Your task to perform on an android device: Open internet settings Image 0: 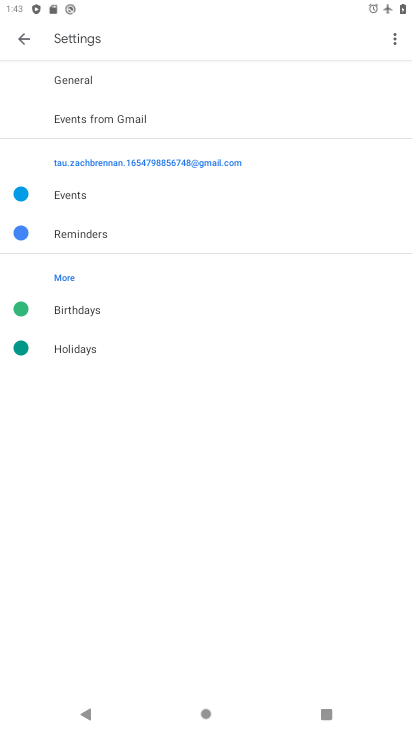
Step 0: press home button
Your task to perform on an android device: Open internet settings Image 1: 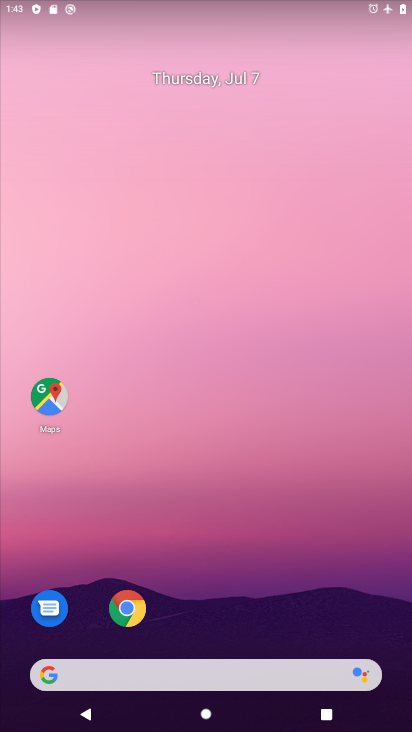
Step 1: drag from (237, 715) to (188, 200)
Your task to perform on an android device: Open internet settings Image 2: 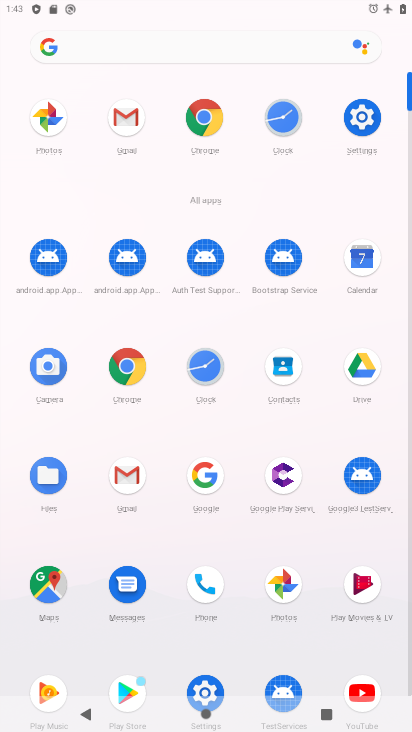
Step 2: click (361, 112)
Your task to perform on an android device: Open internet settings Image 3: 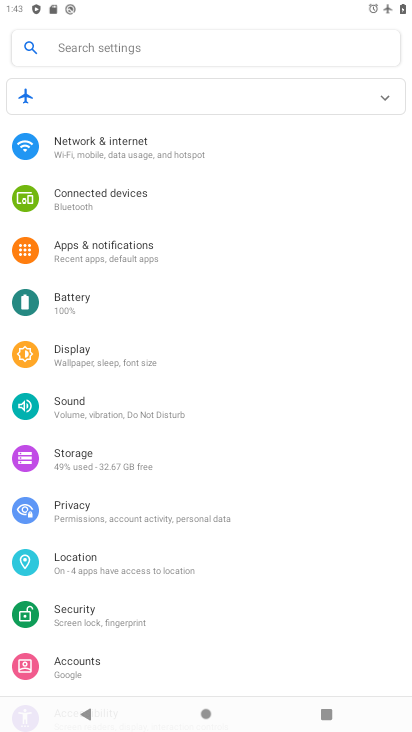
Step 3: click (86, 151)
Your task to perform on an android device: Open internet settings Image 4: 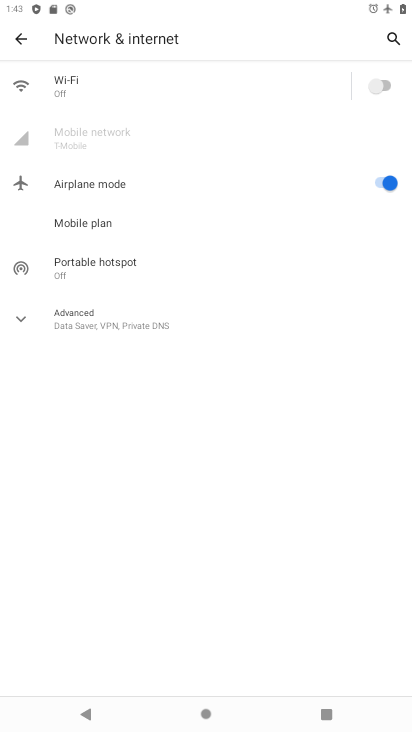
Step 4: task complete